Your task to perform on an android device: What is the news today? Image 0: 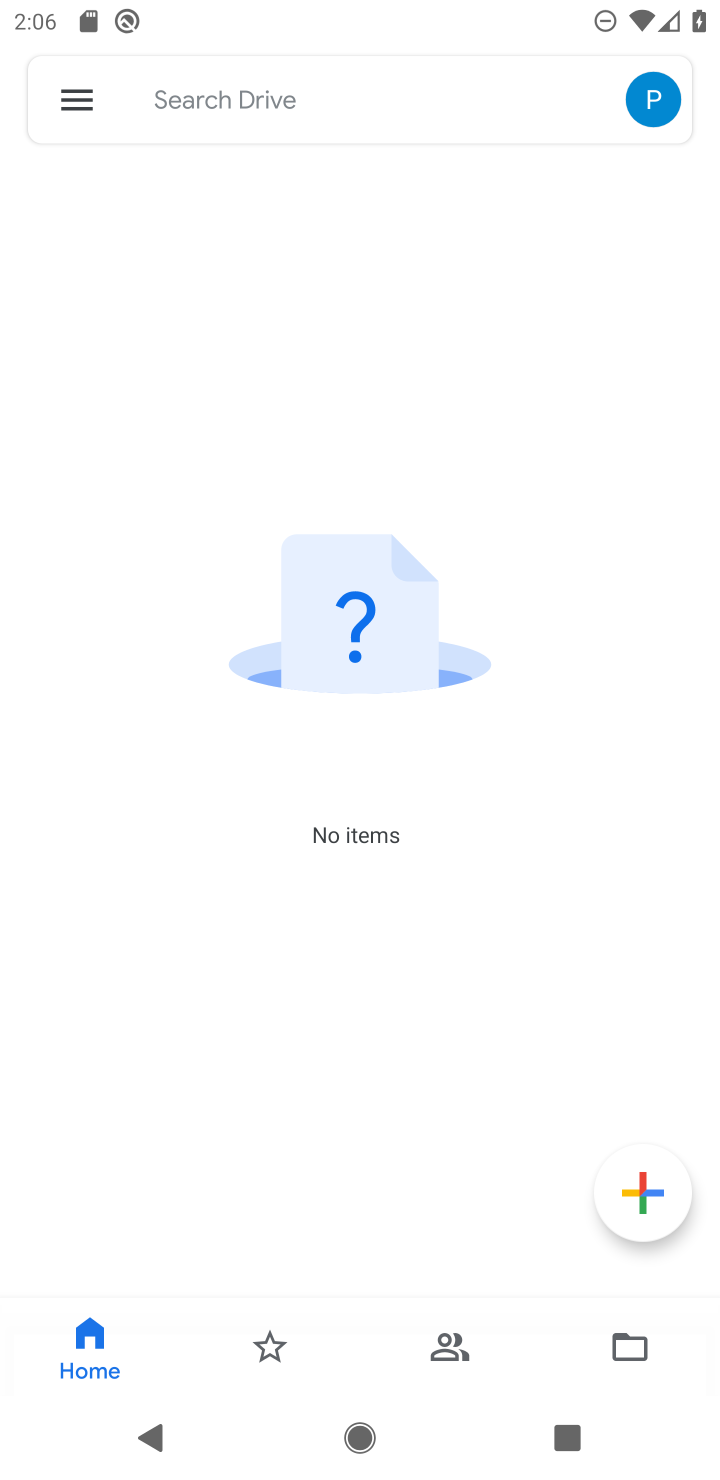
Step 0: press home button
Your task to perform on an android device: What is the news today? Image 1: 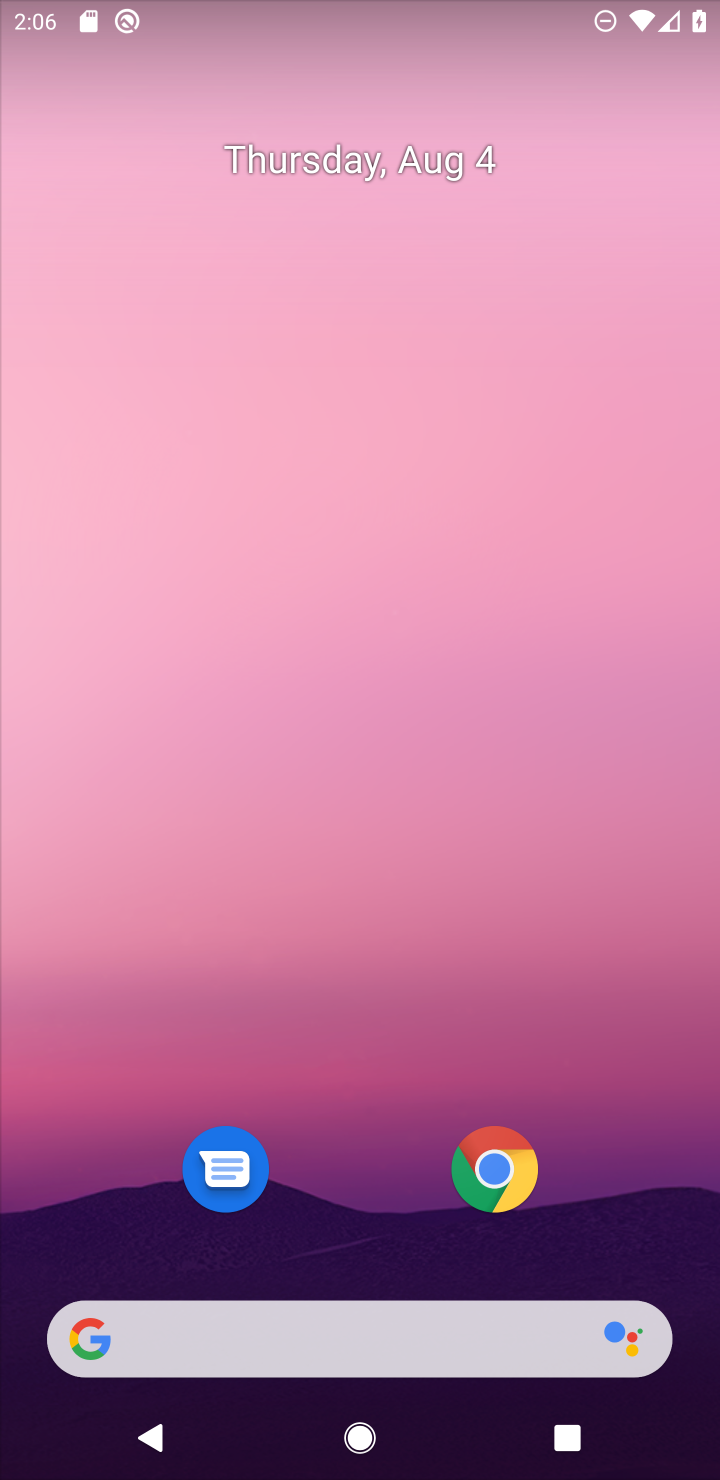
Step 1: click (303, 1324)
Your task to perform on an android device: What is the news today? Image 2: 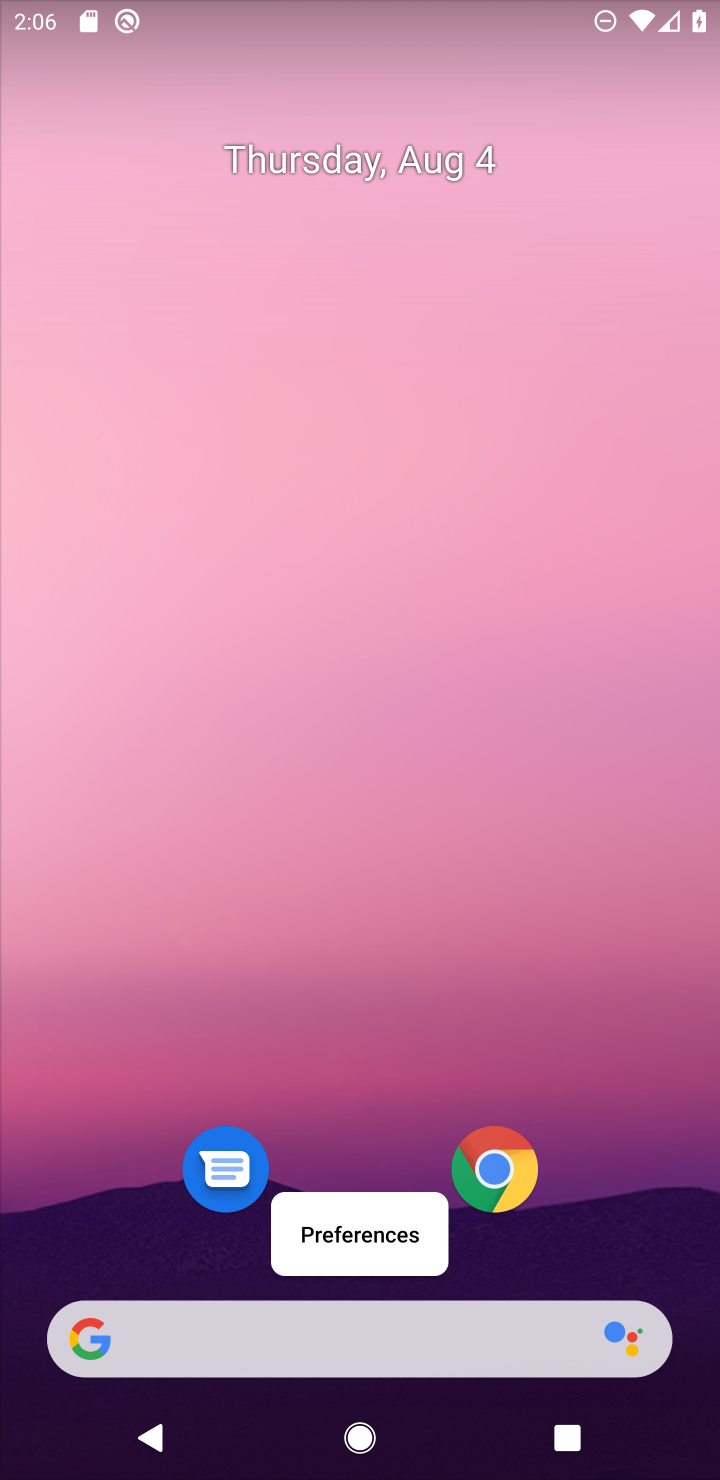
Step 2: click (292, 1340)
Your task to perform on an android device: What is the news today? Image 3: 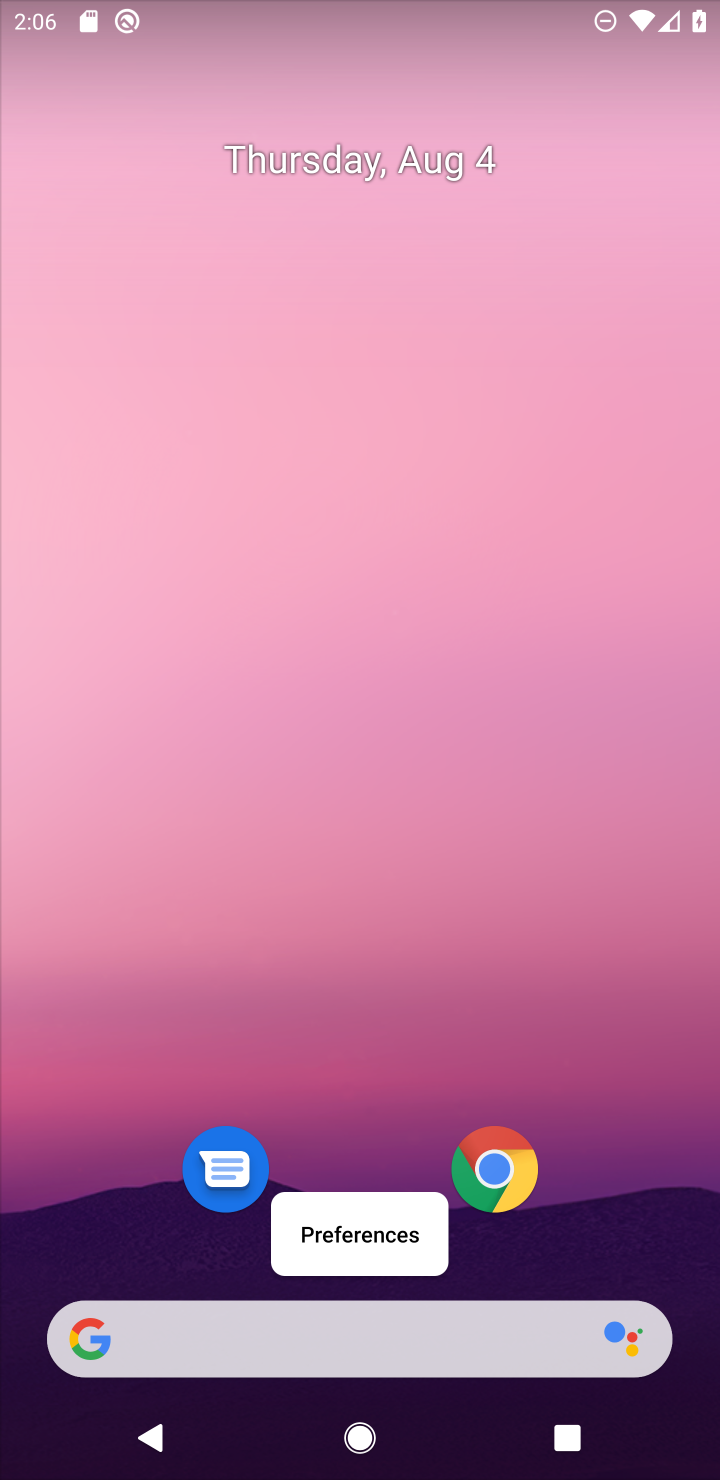
Step 3: click (292, 1340)
Your task to perform on an android device: What is the news today? Image 4: 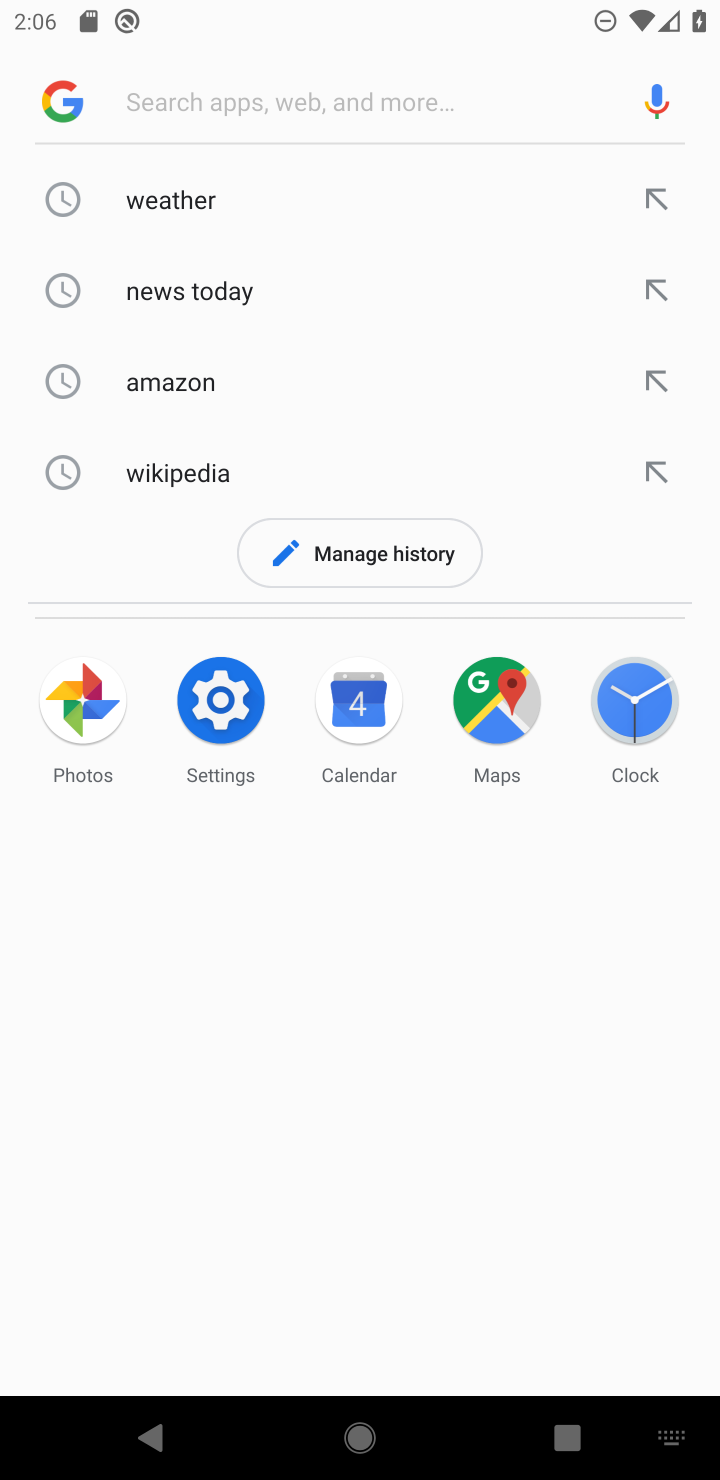
Step 4: click (220, 294)
Your task to perform on an android device: What is the news today? Image 5: 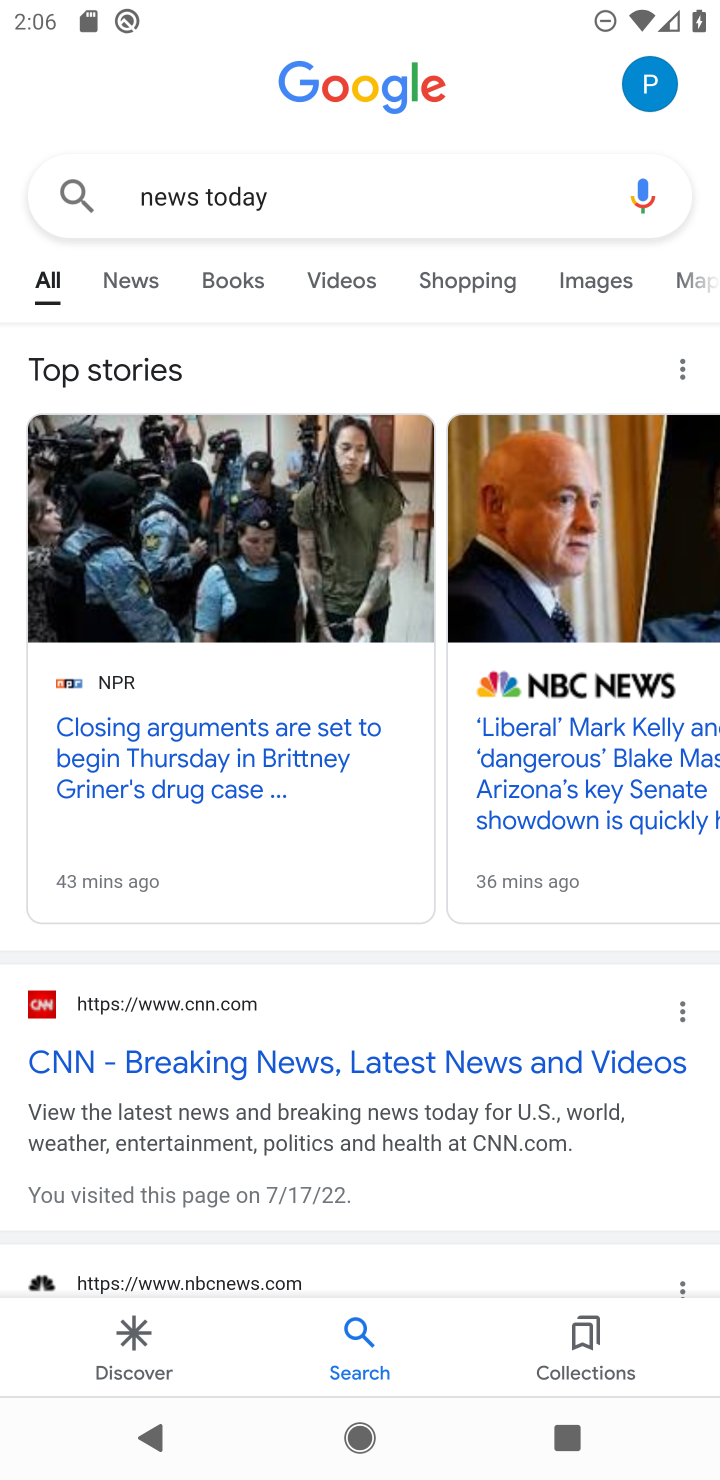
Step 5: click (113, 282)
Your task to perform on an android device: What is the news today? Image 6: 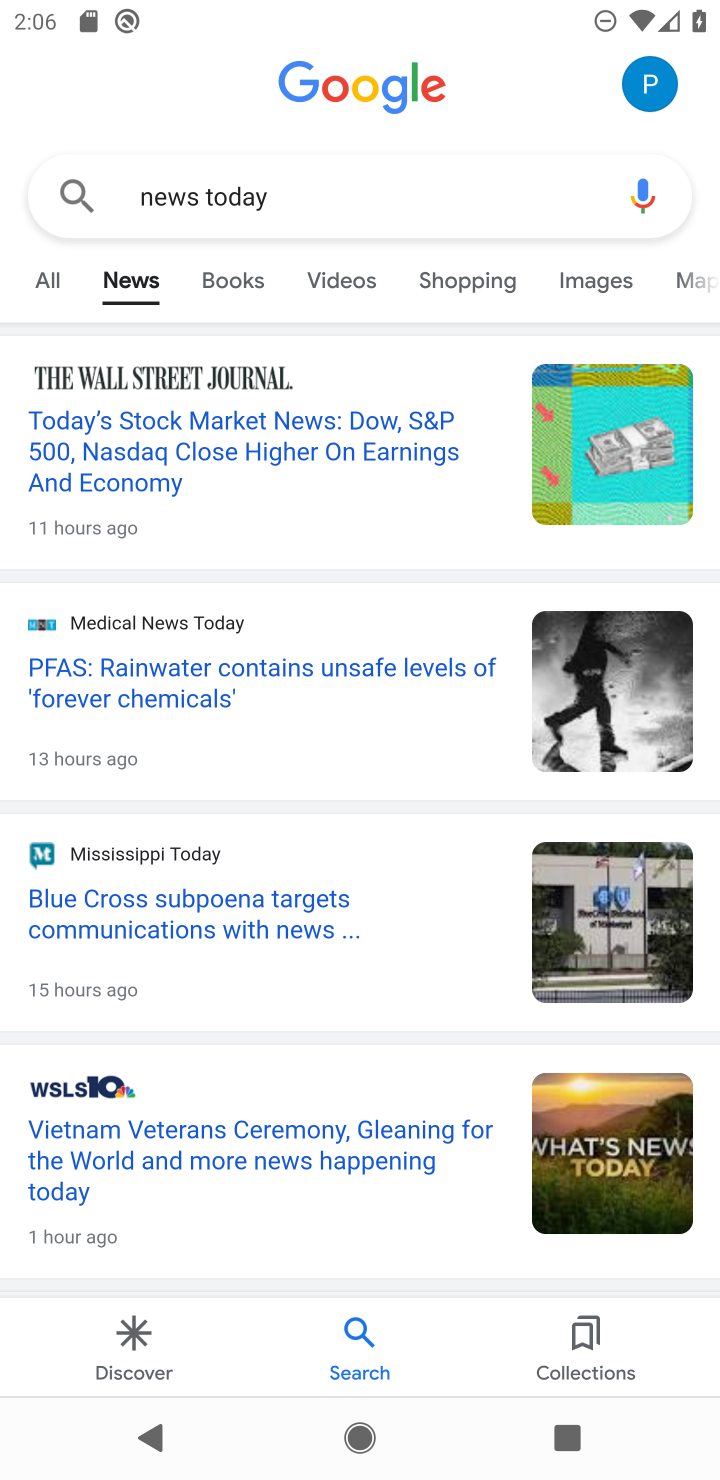
Step 6: drag from (221, 1061) to (238, 753)
Your task to perform on an android device: What is the news today? Image 7: 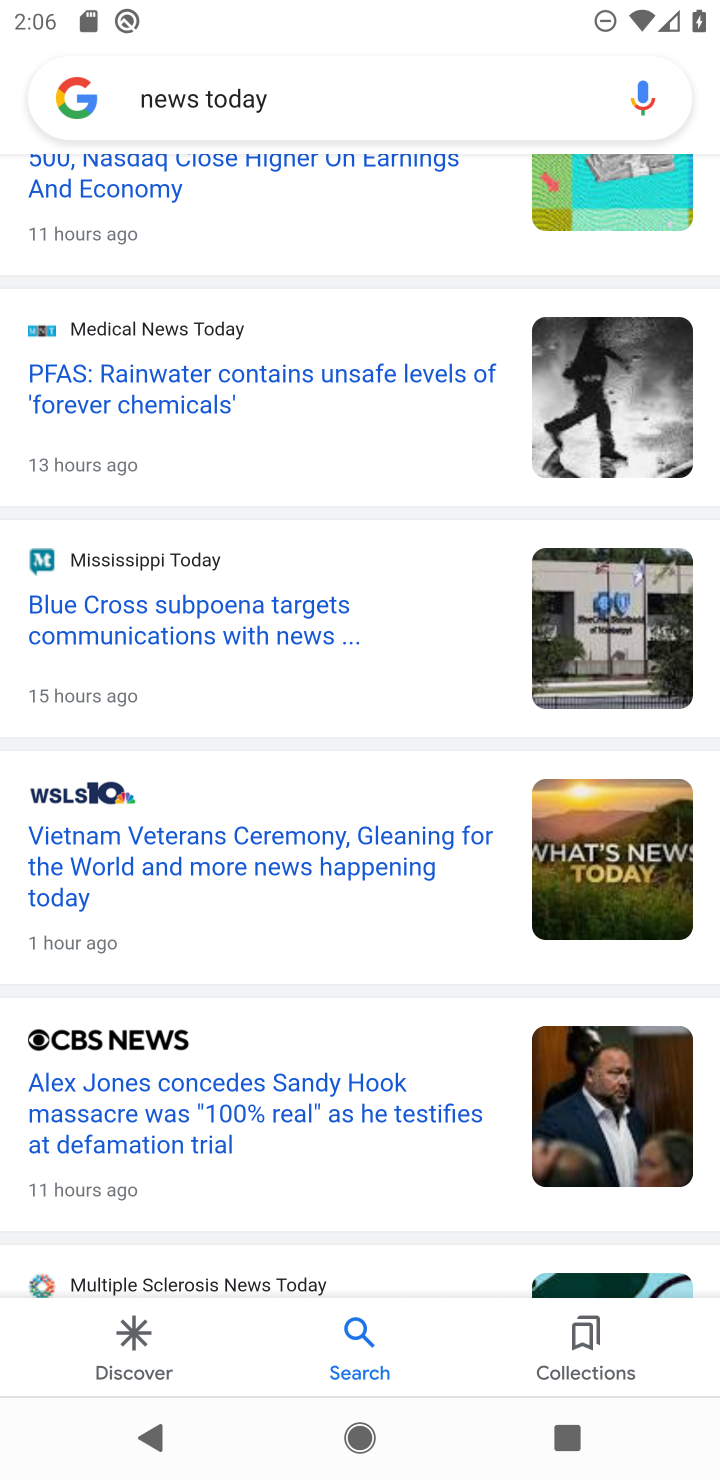
Step 7: click (135, 863)
Your task to perform on an android device: What is the news today? Image 8: 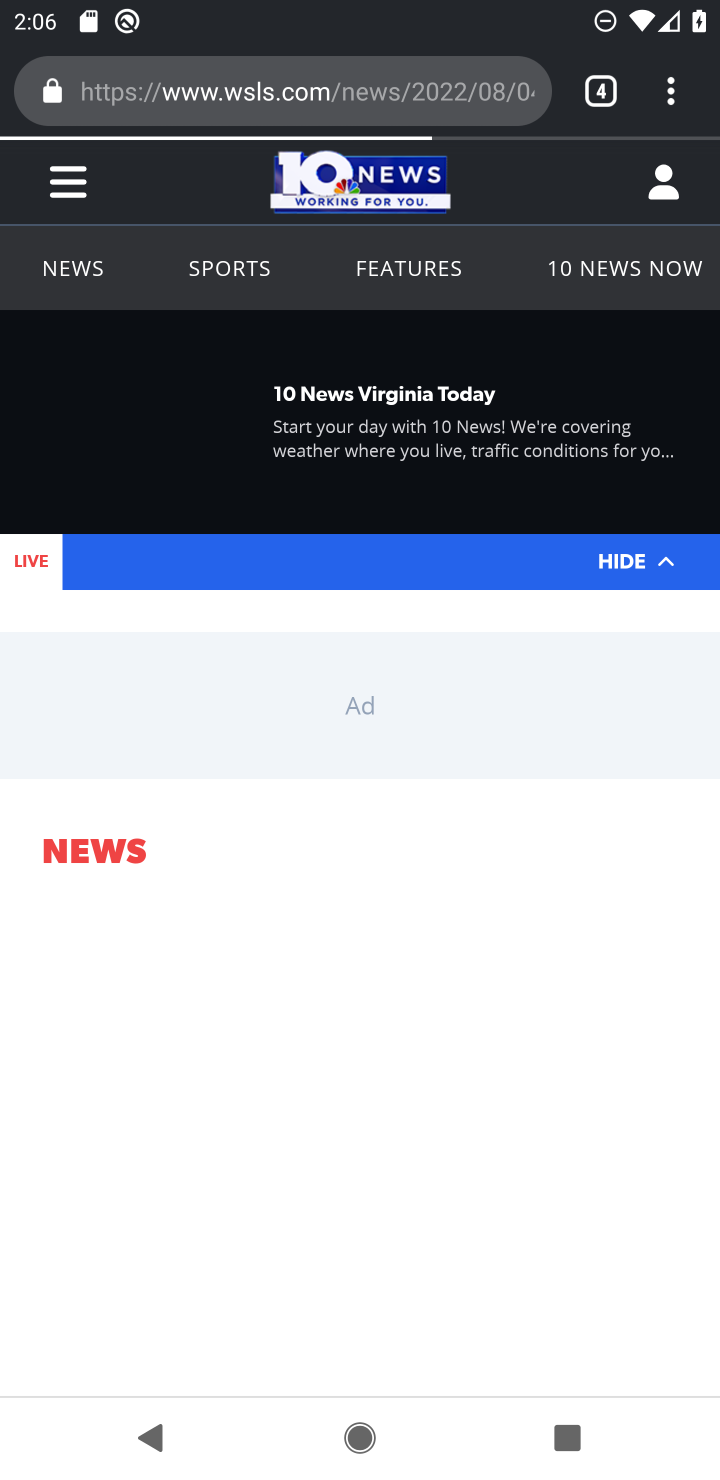
Step 8: task complete